Your task to perform on an android device: delete the emails in spam in the gmail app Image 0: 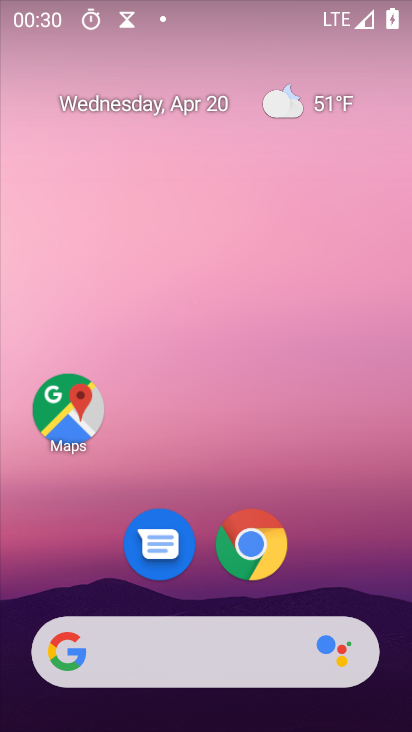
Step 0: drag from (312, 583) to (352, 173)
Your task to perform on an android device: delete the emails in spam in the gmail app Image 1: 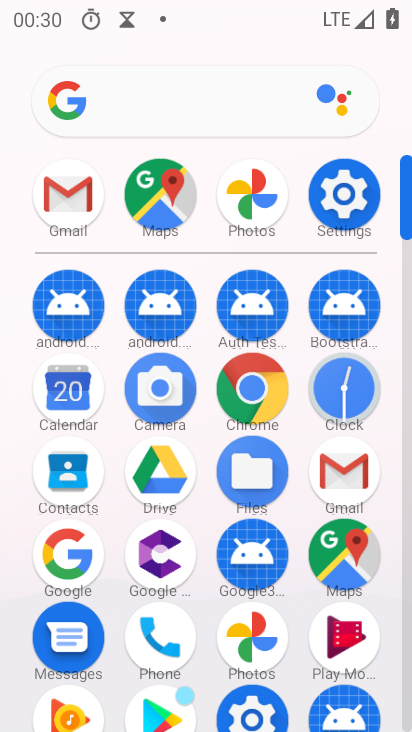
Step 1: click (323, 482)
Your task to perform on an android device: delete the emails in spam in the gmail app Image 2: 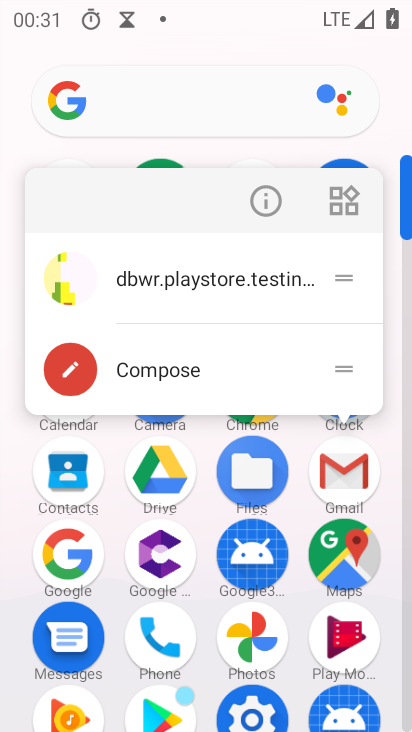
Step 2: click (323, 482)
Your task to perform on an android device: delete the emails in spam in the gmail app Image 3: 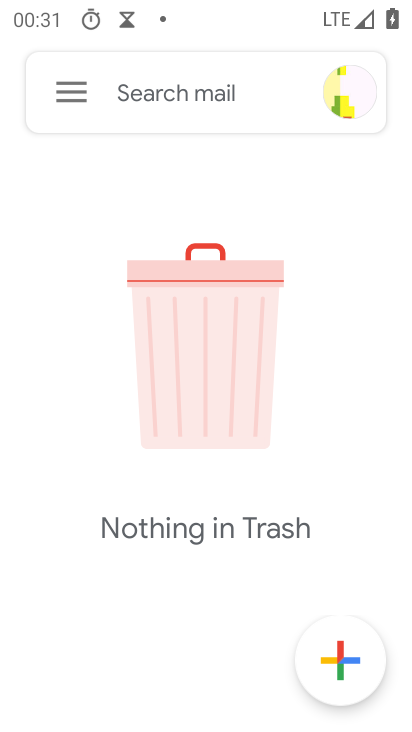
Step 3: click (67, 100)
Your task to perform on an android device: delete the emails in spam in the gmail app Image 4: 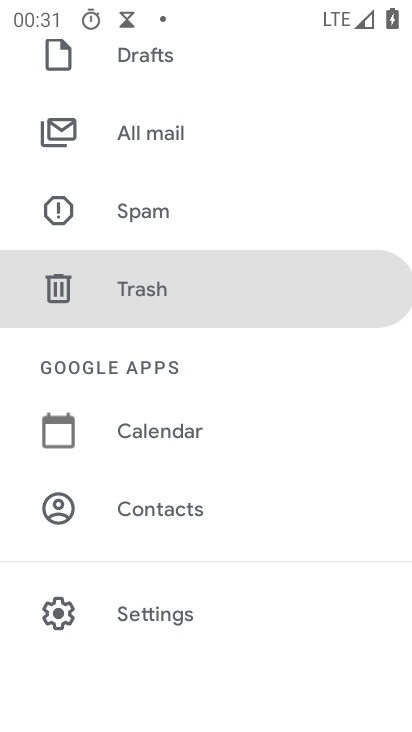
Step 4: click (181, 210)
Your task to perform on an android device: delete the emails in spam in the gmail app Image 5: 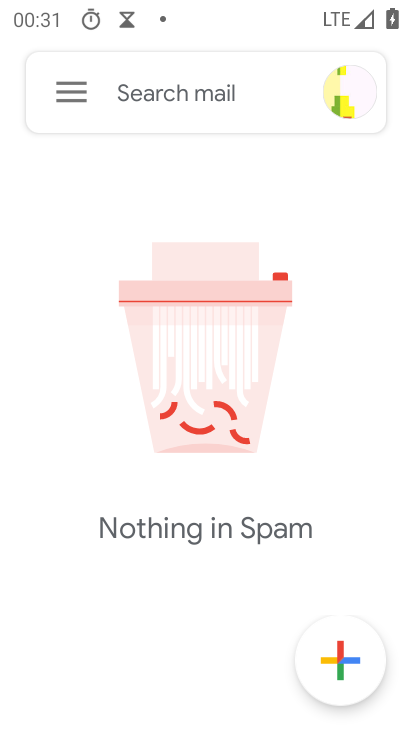
Step 5: task complete